Your task to perform on an android device: Open CNN.com Image 0: 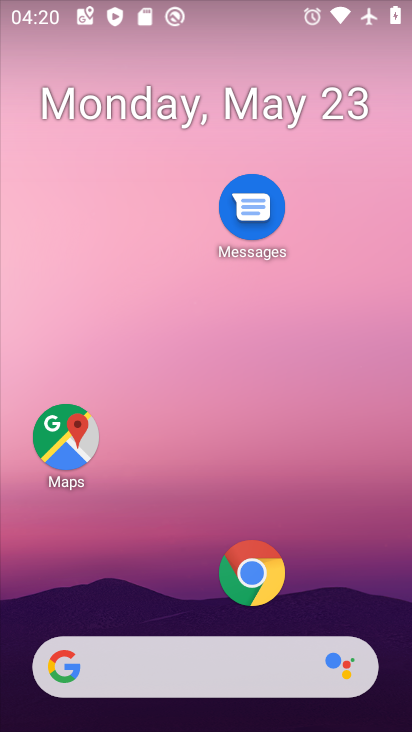
Step 0: drag from (128, 685) to (303, 25)
Your task to perform on an android device: Open CNN.com Image 1: 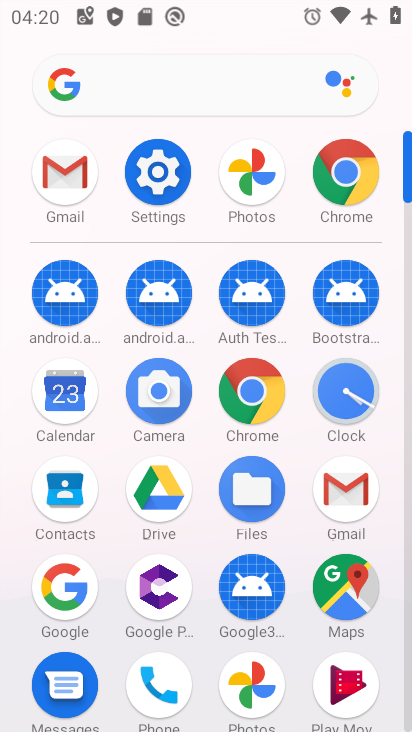
Step 1: click (271, 375)
Your task to perform on an android device: Open CNN.com Image 2: 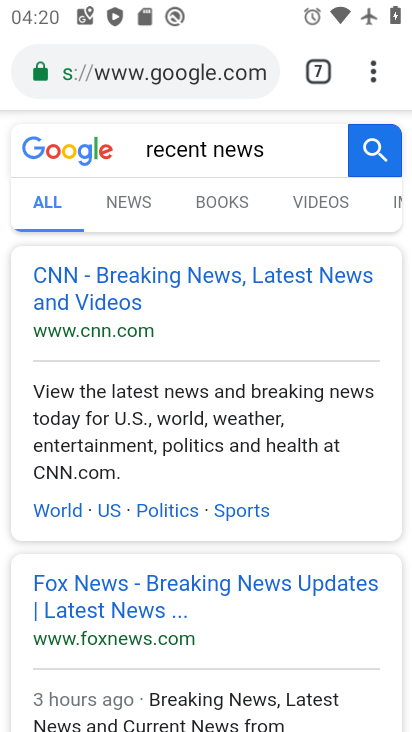
Step 2: click (168, 48)
Your task to perform on an android device: Open CNN.com Image 3: 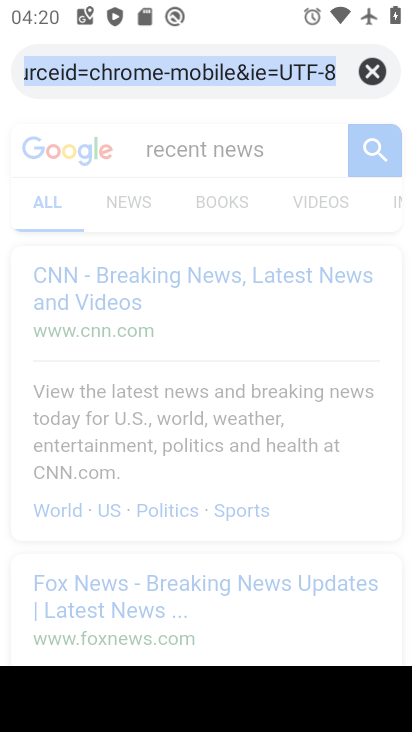
Step 3: click (379, 70)
Your task to perform on an android device: Open CNN.com Image 4: 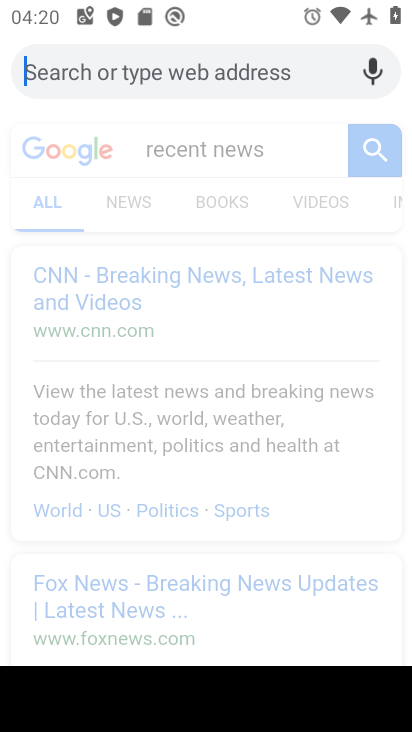
Step 4: type "cnn.com"
Your task to perform on an android device: Open CNN.com Image 5: 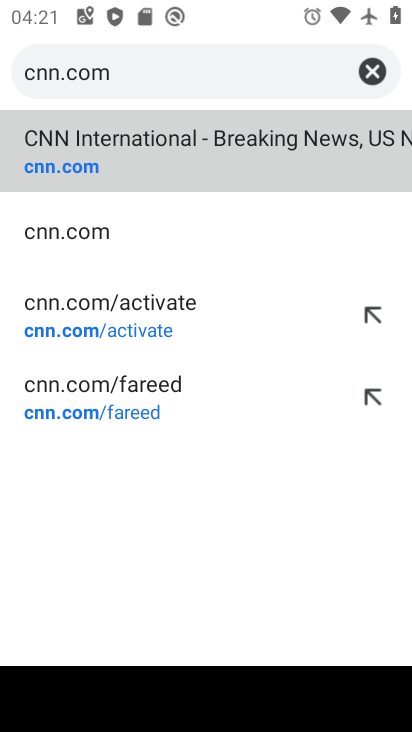
Step 5: click (167, 134)
Your task to perform on an android device: Open CNN.com Image 6: 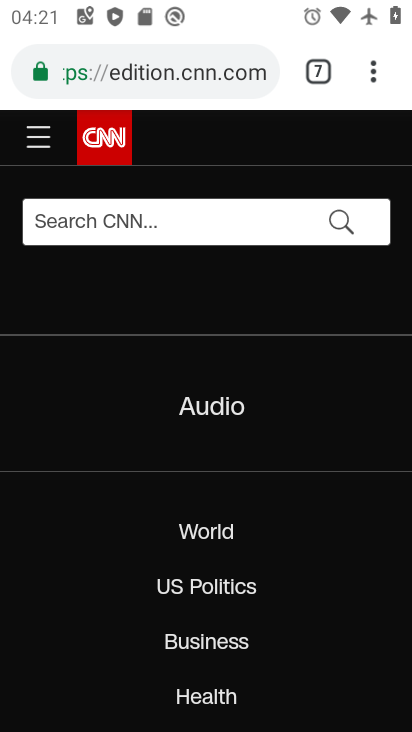
Step 6: task complete